Your task to perform on an android device: delete browsing data in the chrome app Image 0: 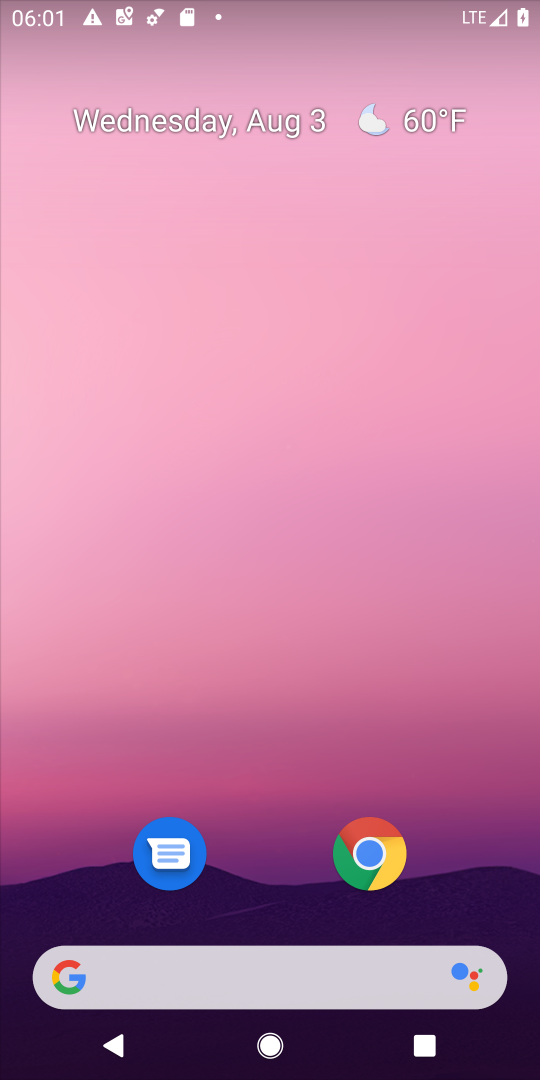
Step 0: drag from (279, 937) to (289, 297)
Your task to perform on an android device: delete browsing data in the chrome app Image 1: 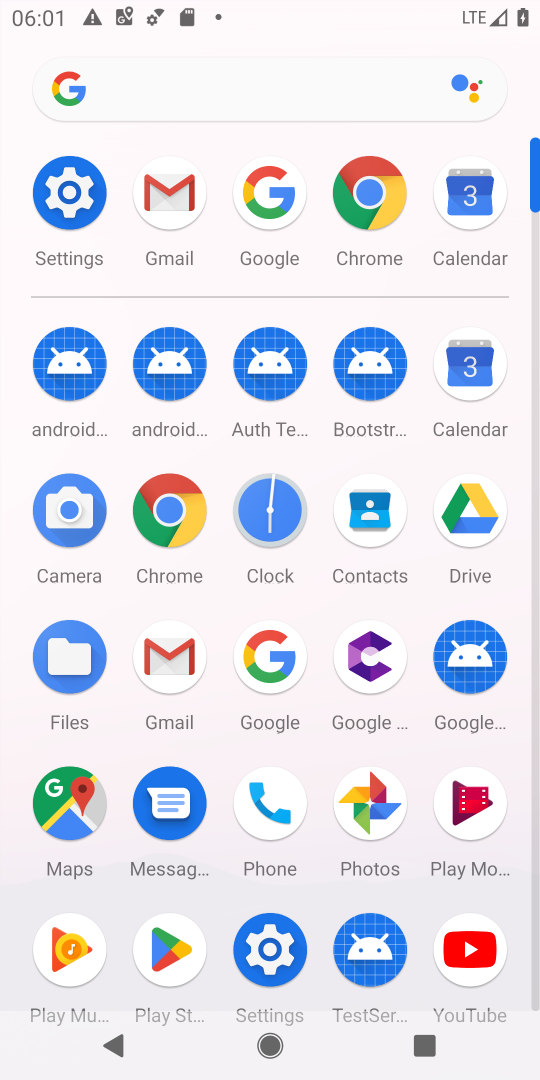
Step 1: click (189, 512)
Your task to perform on an android device: delete browsing data in the chrome app Image 2: 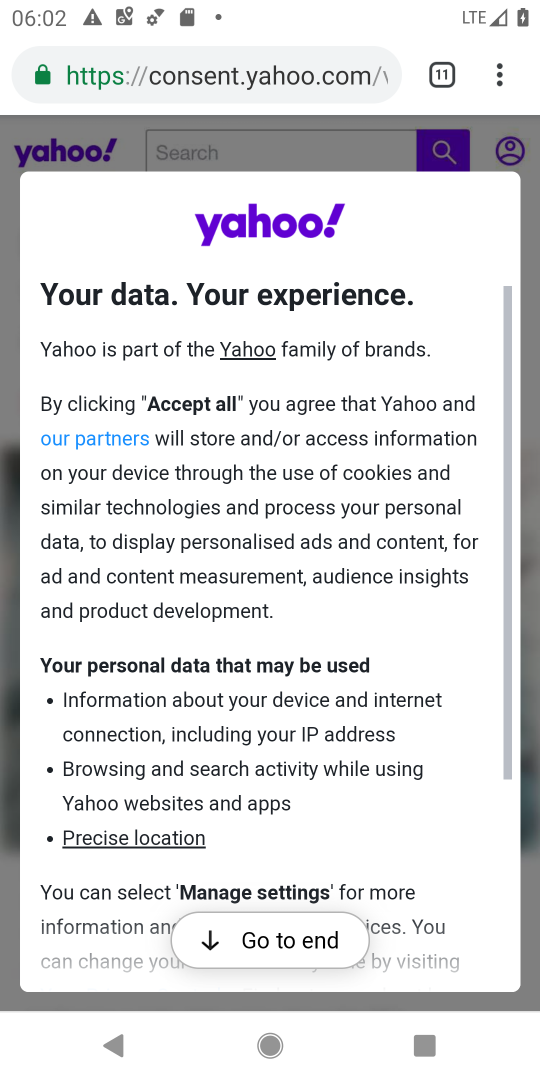
Step 2: click (501, 79)
Your task to perform on an android device: delete browsing data in the chrome app Image 3: 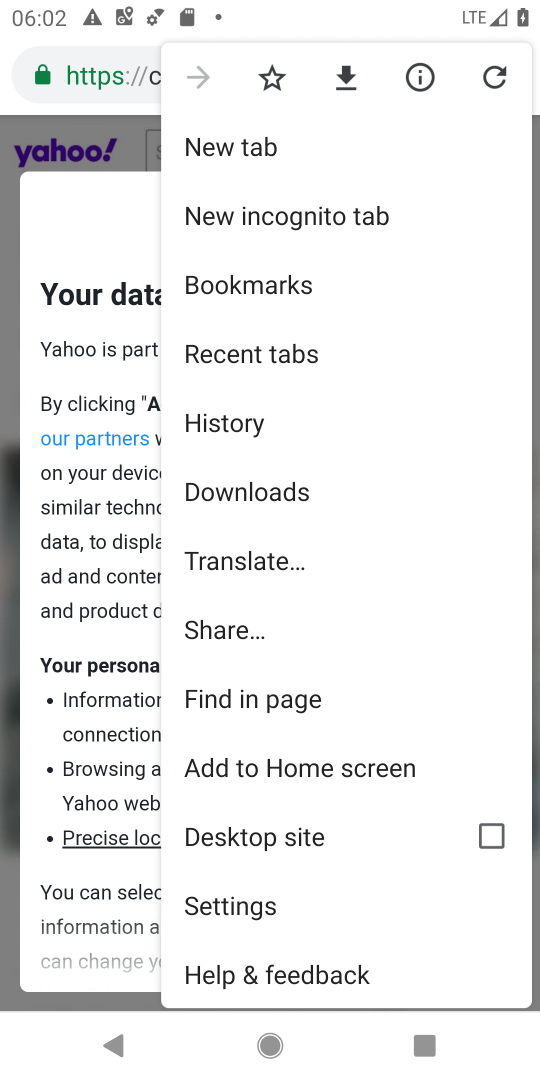
Step 3: click (230, 421)
Your task to perform on an android device: delete browsing data in the chrome app Image 4: 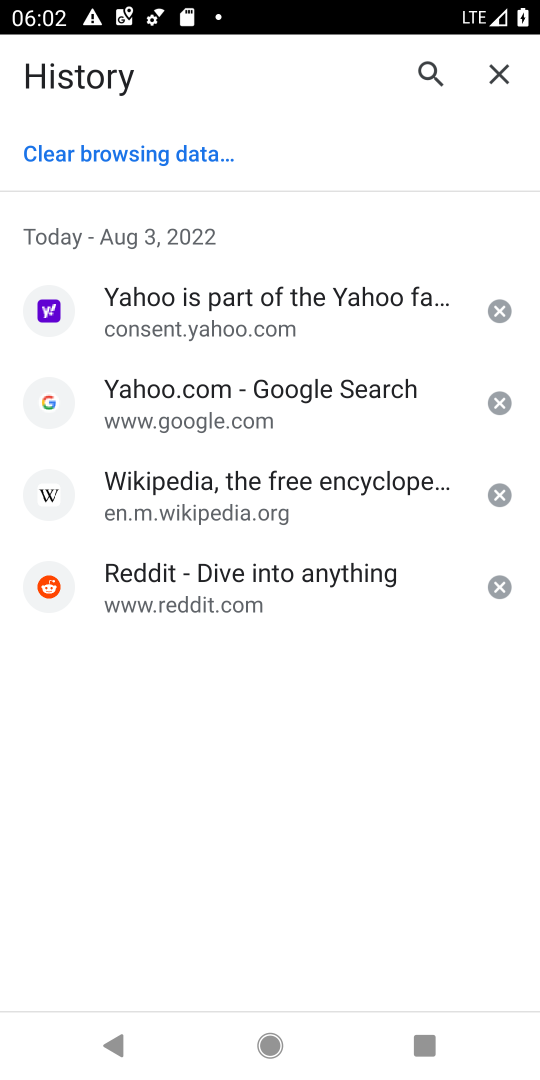
Step 4: click (165, 155)
Your task to perform on an android device: delete browsing data in the chrome app Image 5: 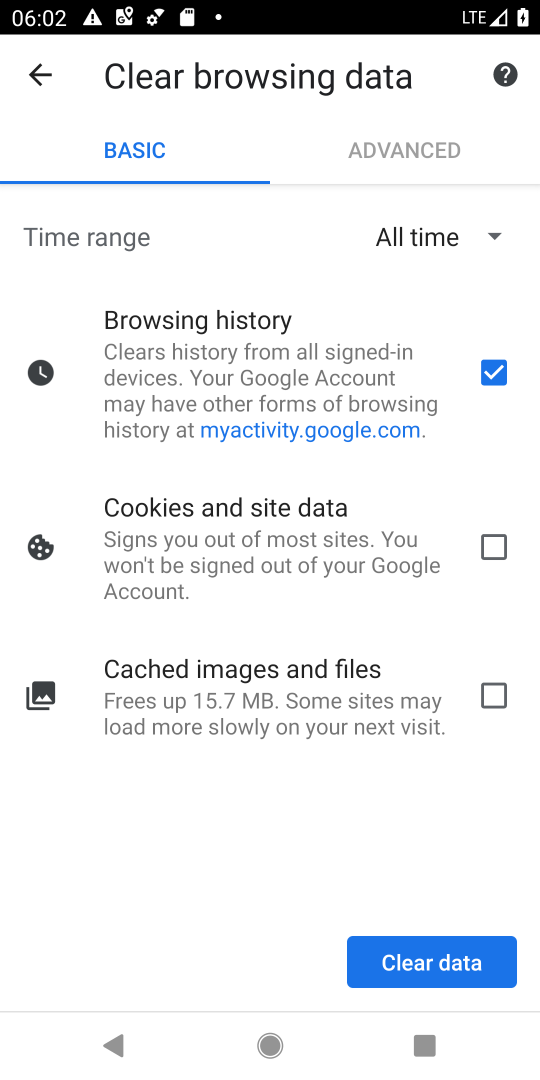
Step 5: click (420, 965)
Your task to perform on an android device: delete browsing data in the chrome app Image 6: 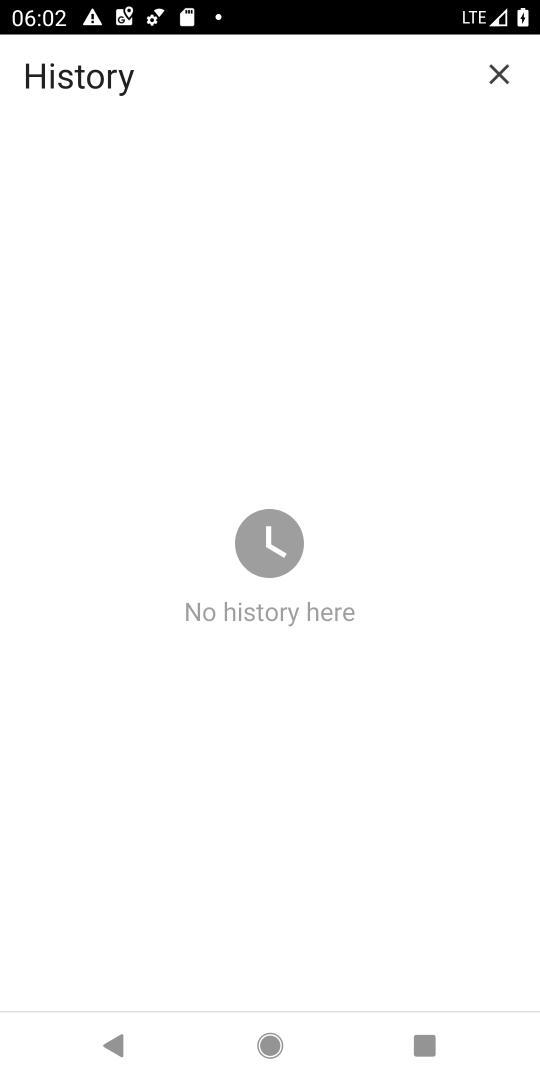
Step 6: task complete